Your task to perform on an android device: change the clock display to digital Image 0: 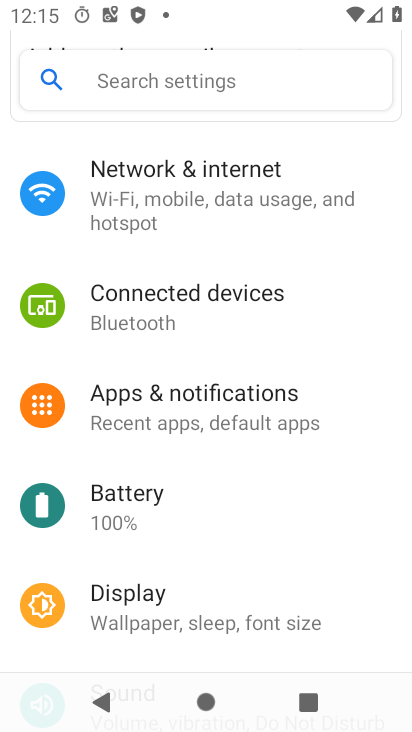
Step 0: press home button
Your task to perform on an android device: change the clock display to digital Image 1: 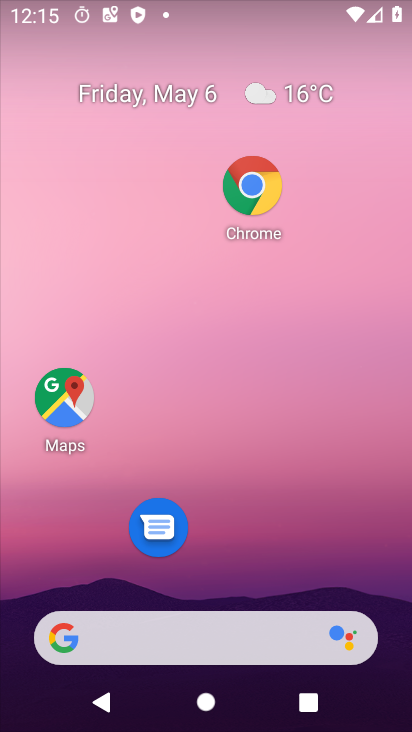
Step 1: drag from (236, 590) to (310, 97)
Your task to perform on an android device: change the clock display to digital Image 2: 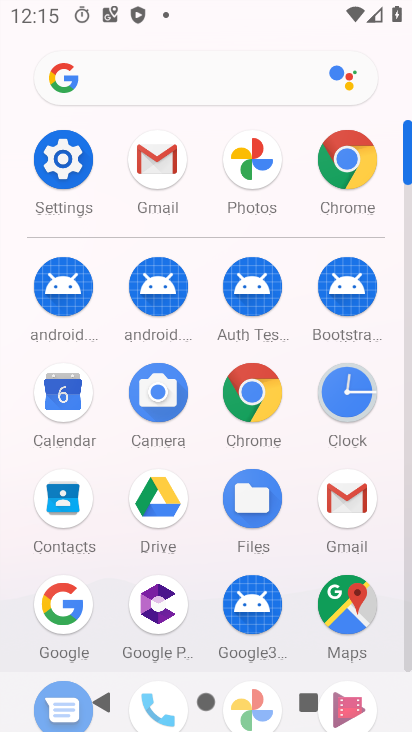
Step 2: click (355, 402)
Your task to perform on an android device: change the clock display to digital Image 3: 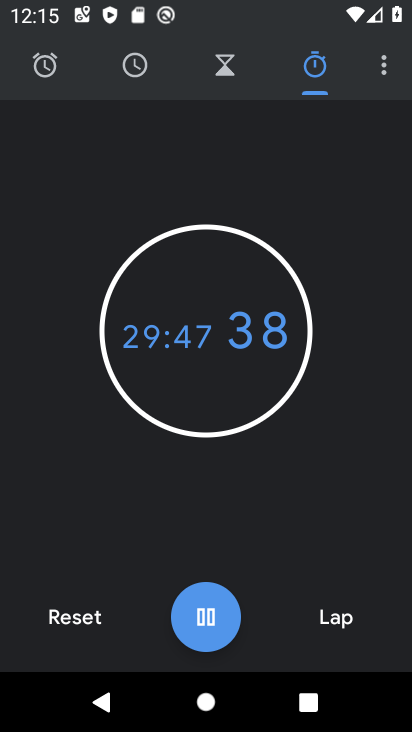
Step 3: click (76, 619)
Your task to perform on an android device: change the clock display to digital Image 4: 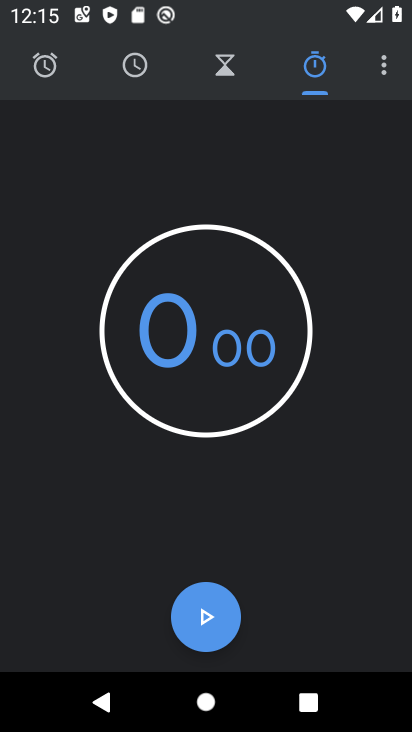
Step 4: click (381, 68)
Your task to perform on an android device: change the clock display to digital Image 5: 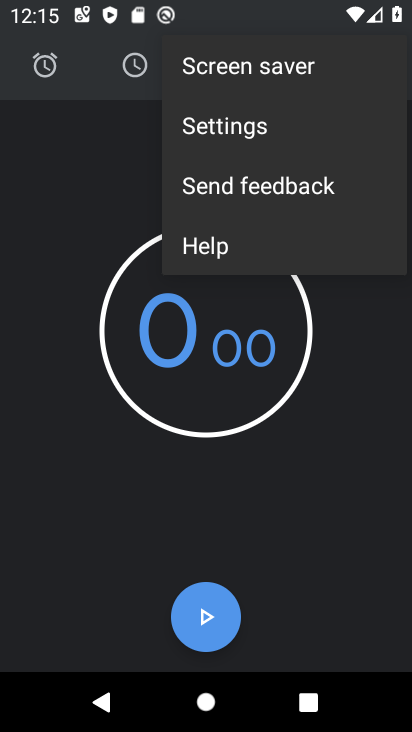
Step 5: click (266, 136)
Your task to perform on an android device: change the clock display to digital Image 6: 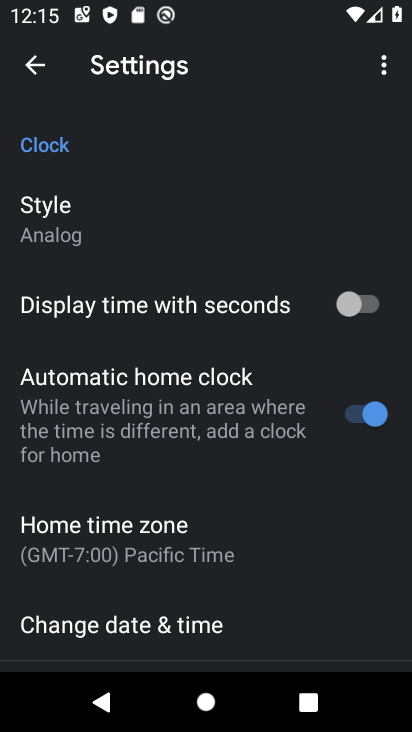
Step 6: click (53, 226)
Your task to perform on an android device: change the clock display to digital Image 7: 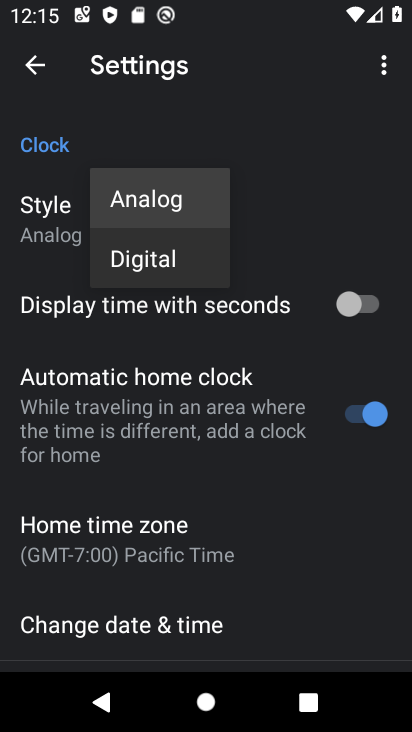
Step 7: click (127, 266)
Your task to perform on an android device: change the clock display to digital Image 8: 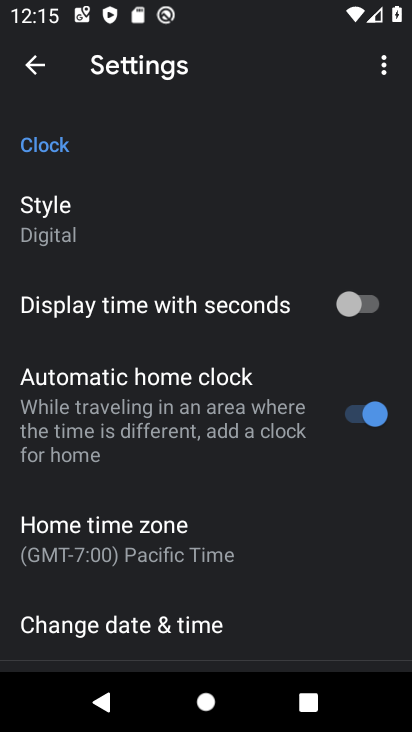
Step 8: task complete